Your task to perform on an android device: turn on javascript in the chrome app Image 0: 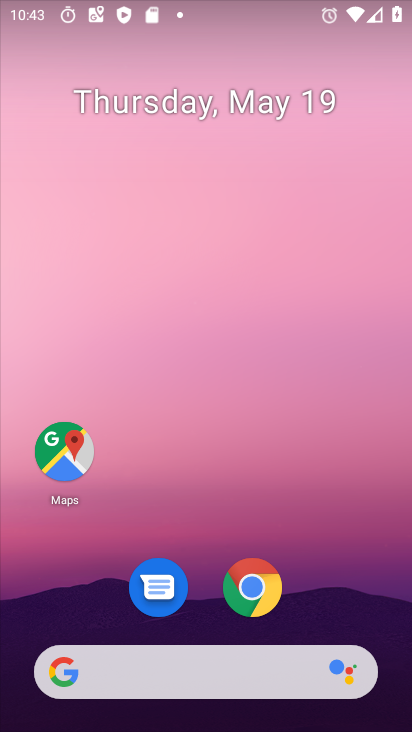
Step 0: drag from (392, 594) to (319, 182)
Your task to perform on an android device: turn on javascript in the chrome app Image 1: 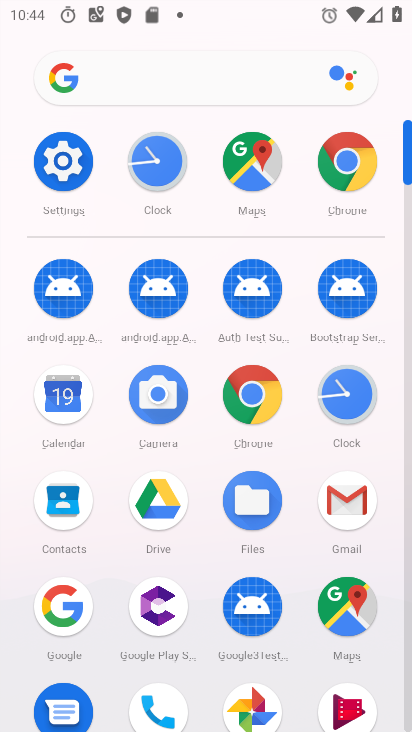
Step 1: click (363, 166)
Your task to perform on an android device: turn on javascript in the chrome app Image 2: 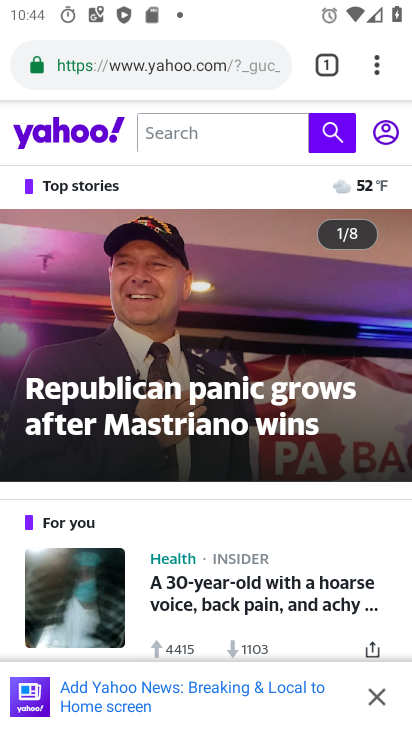
Step 2: click (381, 71)
Your task to perform on an android device: turn on javascript in the chrome app Image 3: 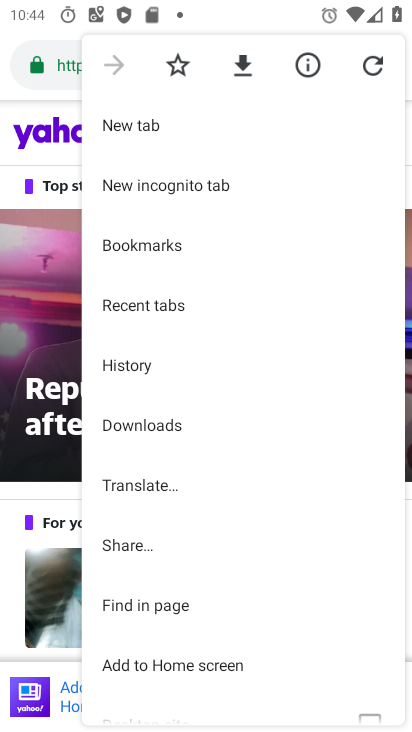
Step 3: drag from (242, 635) to (251, 303)
Your task to perform on an android device: turn on javascript in the chrome app Image 4: 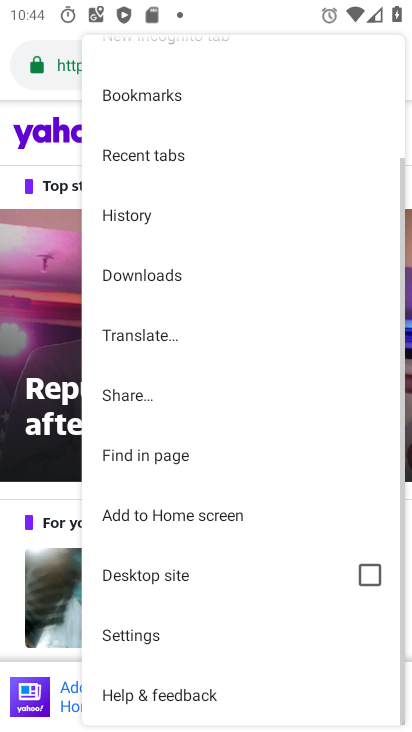
Step 4: click (184, 628)
Your task to perform on an android device: turn on javascript in the chrome app Image 5: 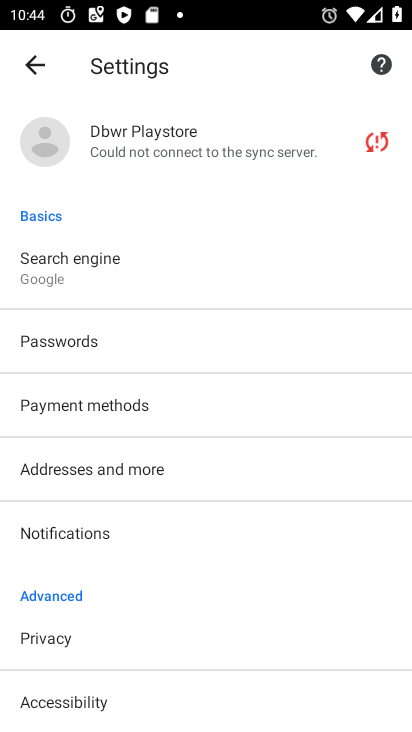
Step 5: drag from (254, 627) to (280, 255)
Your task to perform on an android device: turn on javascript in the chrome app Image 6: 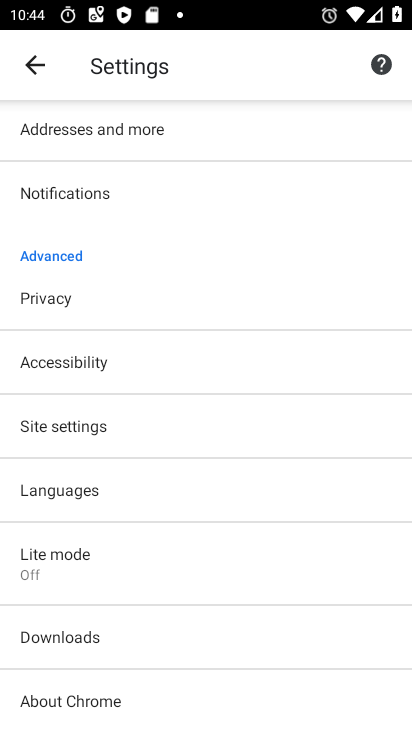
Step 6: click (161, 430)
Your task to perform on an android device: turn on javascript in the chrome app Image 7: 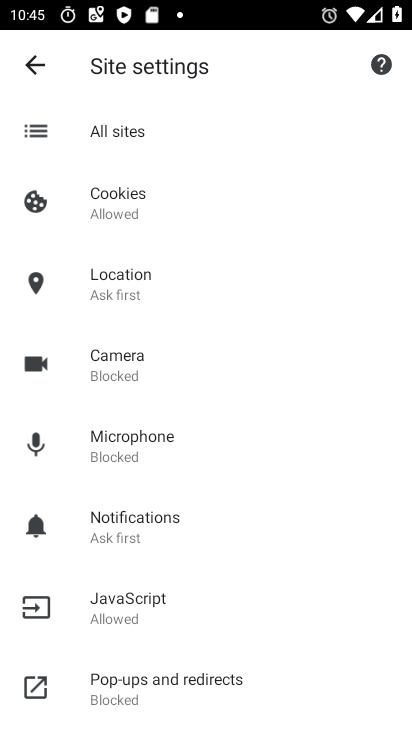
Step 7: click (184, 604)
Your task to perform on an android device: turn on javascript in the chrome app Image 8: 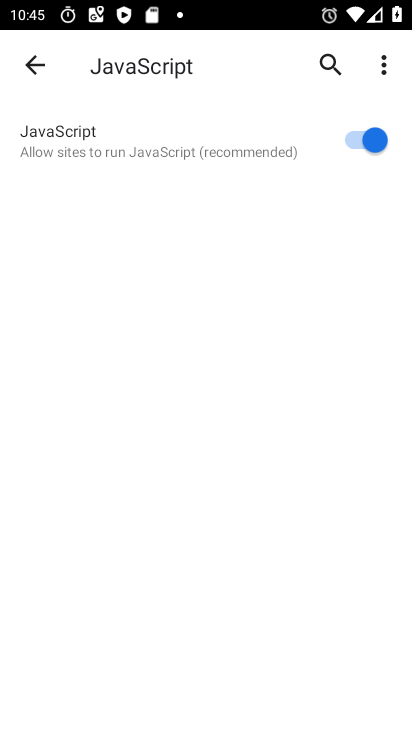
Step 8: task complete